Your task to perform on an android device: Go to network settings Image 0: 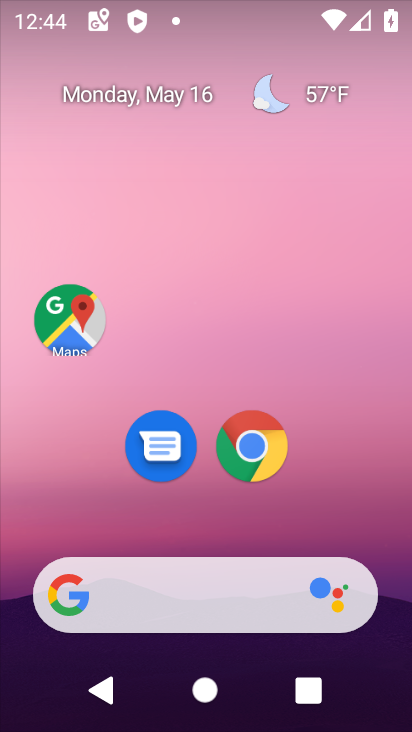
Step 0: drag from (301, 428) to (301, 121)
Your task to perform on an android device: Go to network settings Image 1: 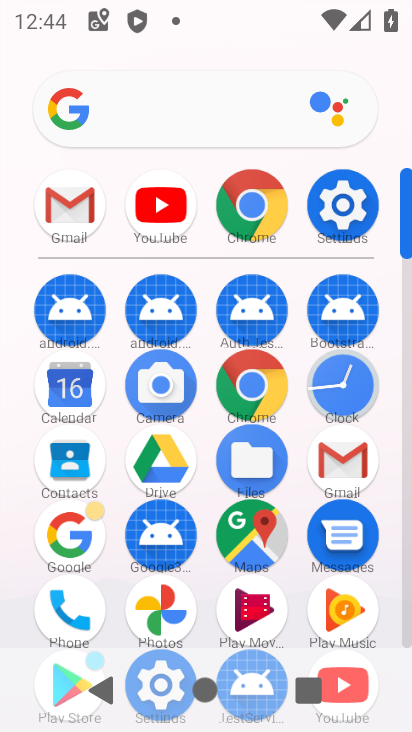
Step 1: click (359, 225)
Your task to perform on an android device: Go to network settings Image 2: 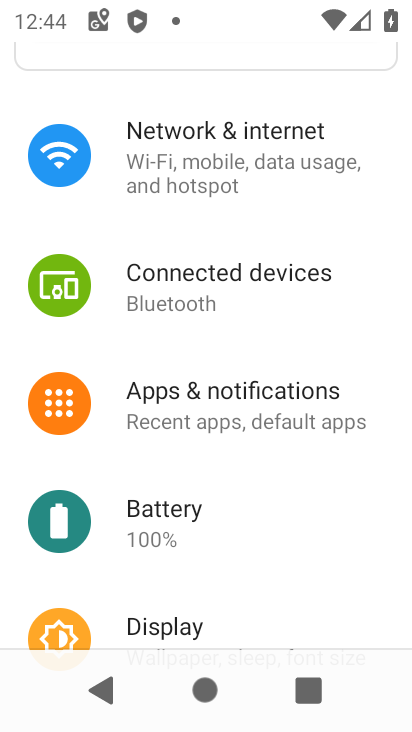
Step 2: click (248, 160)
Your task to perform on an android device: Go to network settings Image 3: 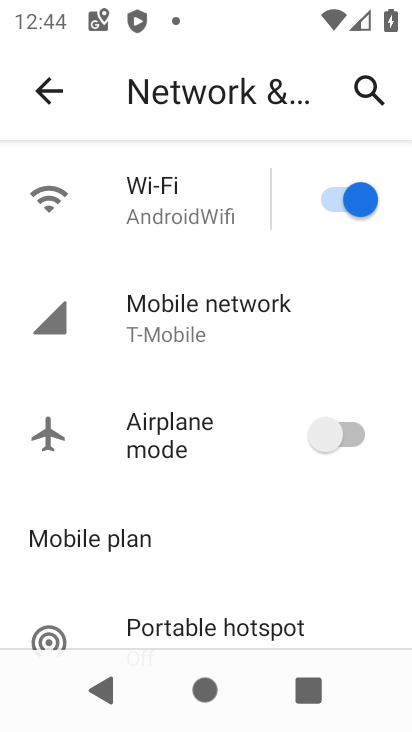
Step 3: task complete